Your task to perform on an android device: delete a single message in the gmail app Image 0: 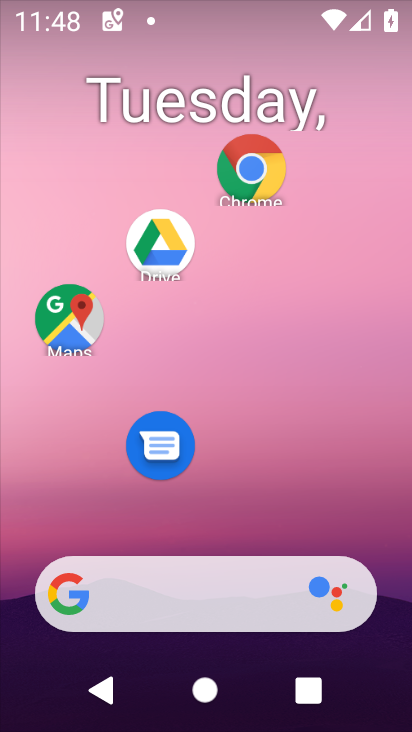
Step 0: click (167, 132)
Your task to perform on an android device: delete a single message in the gmail app Image 1: 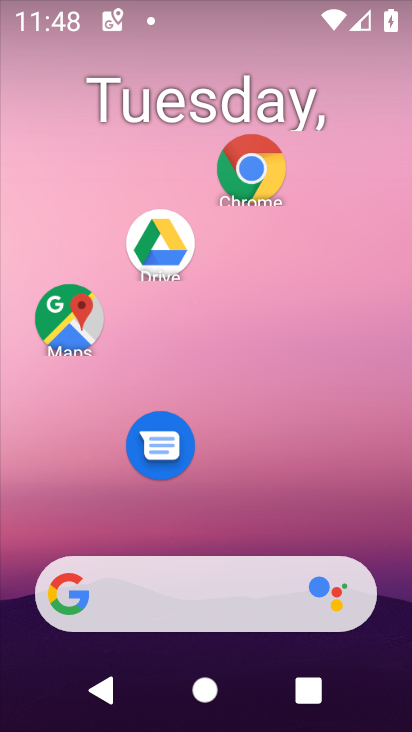
Step 1: drag from (225, 520) to (232, 122)
Your task to perform on an android device: delete a single message in the gmail app Image 2: 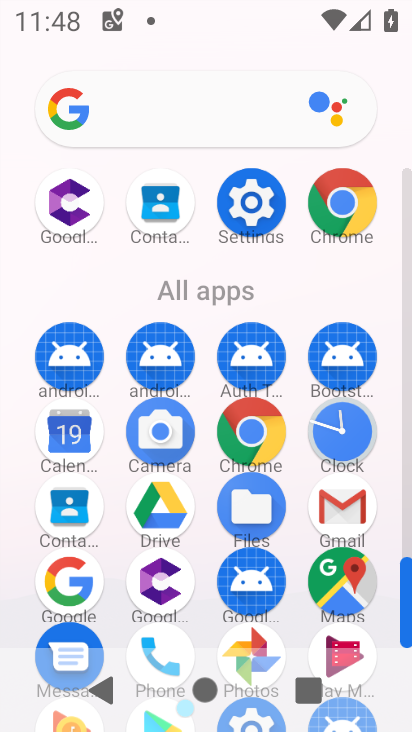
Step 2: click (329, 491)
Your task to perform on an android device: delete a single message in the gmail app Image 3: 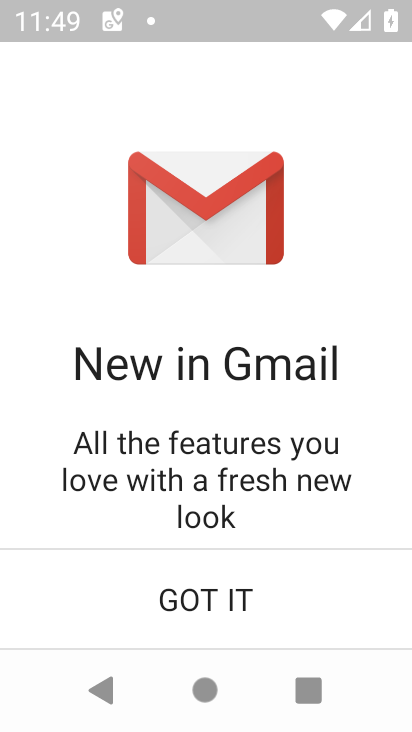
Step 3: click (273, 578)
Your task to perform on an android device: delete a single message in the gmail app Image 4: 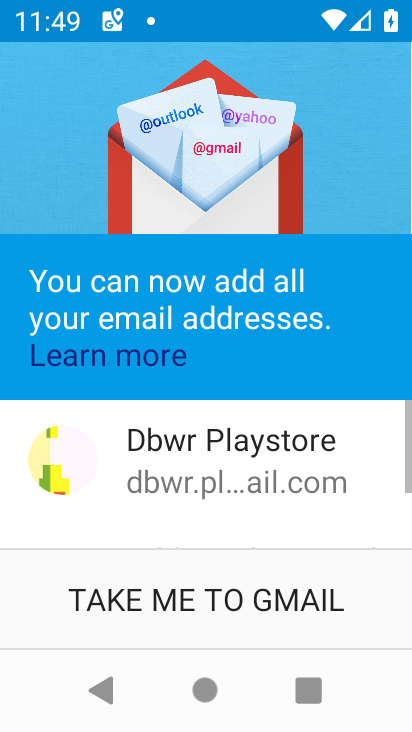
Step 4: click (272, 579)
Your task to perform on an android device: delete a single message in the gmail app Image 5: 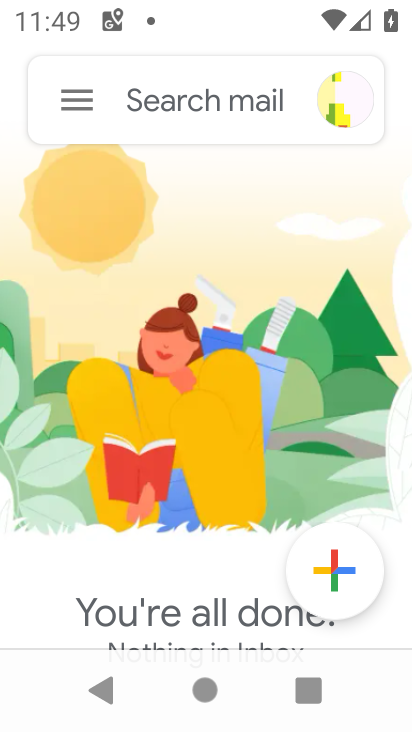
Step 5: click (63, 107)
Your task to perform on an android device: delete a single message in the gmail app Image 6: 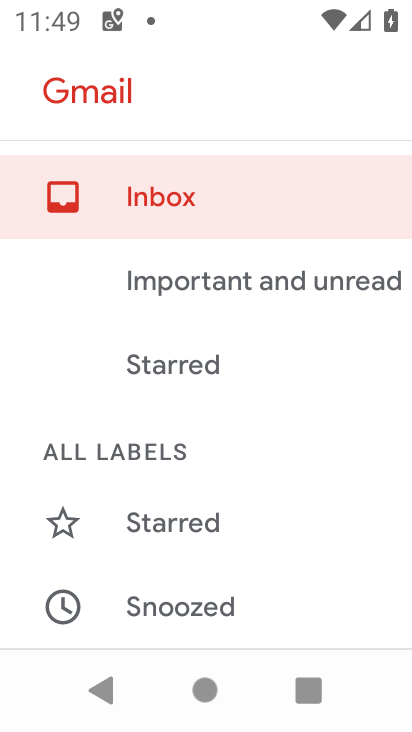
Step 6: drag from (234, 558) to (251, 220)
Your task to perform on an android device: delete a single message in the gmail app Image 7: 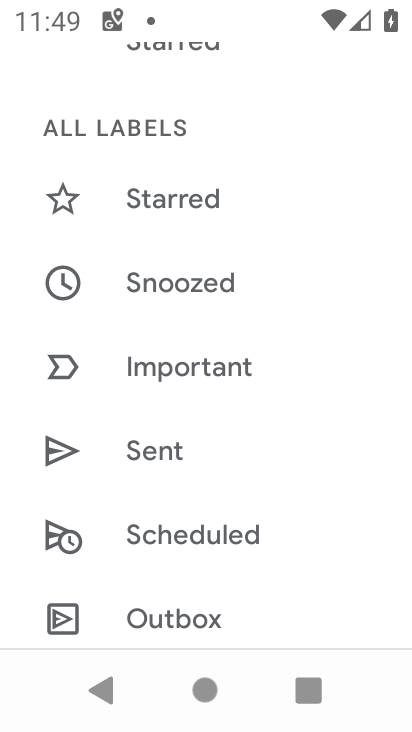
Step 7: drag from (268, 558) to (274, 303)
Your task to perform on an android device: delete a single message in the gmail app Image 8: 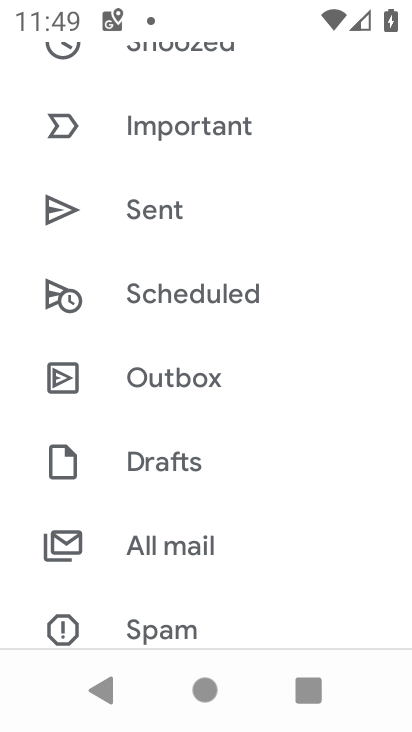
Step 8: click (189, 558)
Your task to perform on an android device: delete a single message in the gmail app Image 9: 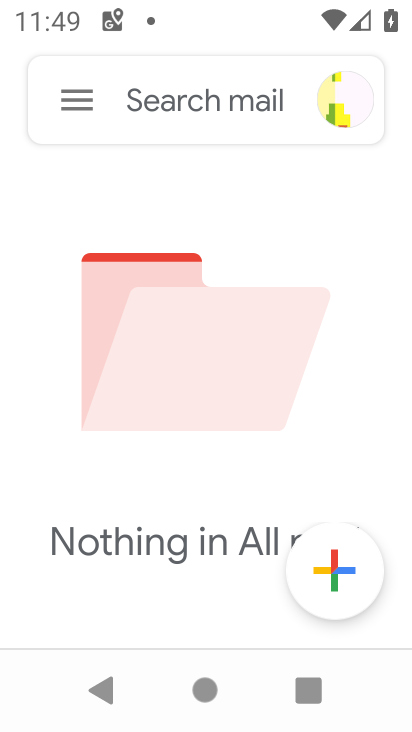
Step 9: task complete